Your task to perform on an android device: uninstall "Nova Launcher" Image 0: 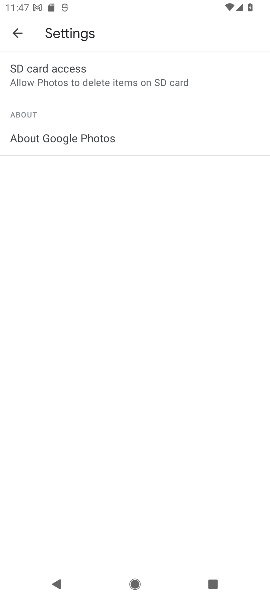
Step 0: press home button
Your task to perform on an android device: uninstall "Nova Launcher" Image 1: 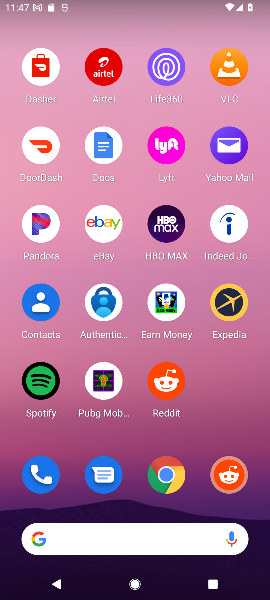
Step 1: drag from (114, 481) to (120, 99)
Your task to perform on an android device: uninstall "Nova Launcher" Image 2: 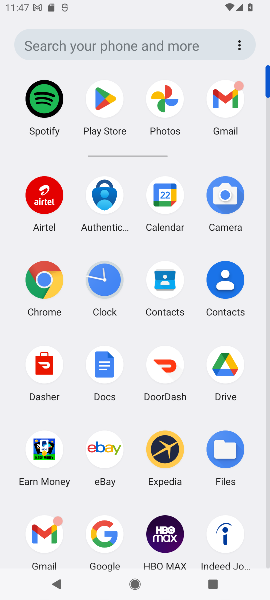
Step 2: click (102, 99)
Your task to perform on an android device: uninstall "Nova Launcher" Image 3: 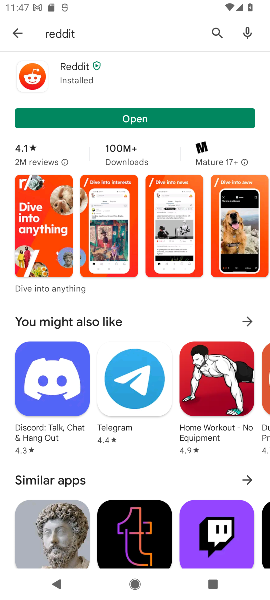
Step 3: click (15, 29)
Your task to perform on an android device: uninstall "Nova Launcher" Image 4: 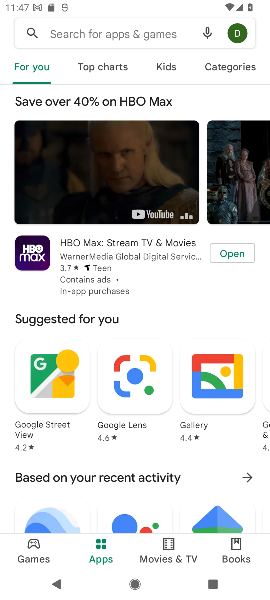
Step 4: click (72, 26)
Your task to perform on an android device: uninstall "Nova Launcher" Image 5: 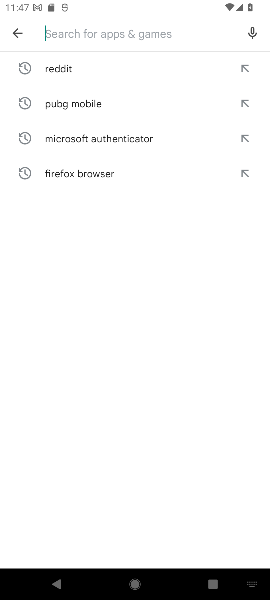
Step 5: type "Nova Launcher"
Your task to perform on an android device: uninstall "Nova Launcher" Image 6: 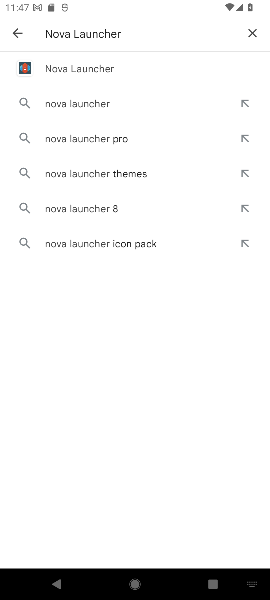
Step 6: click (107, 68)
Your task to perform on an android device: uninstall "Nova Launcher" Image 7: 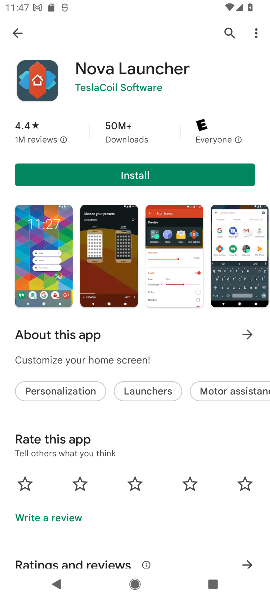
Step 7: click (127, 170)
Your task to perform on an android device: uninstall "Nova Launcher" Image 8: 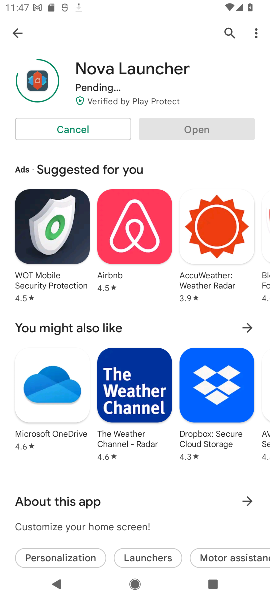
Step 8: task complete